Your task to perform on an android device: Open Android settings Image 0: 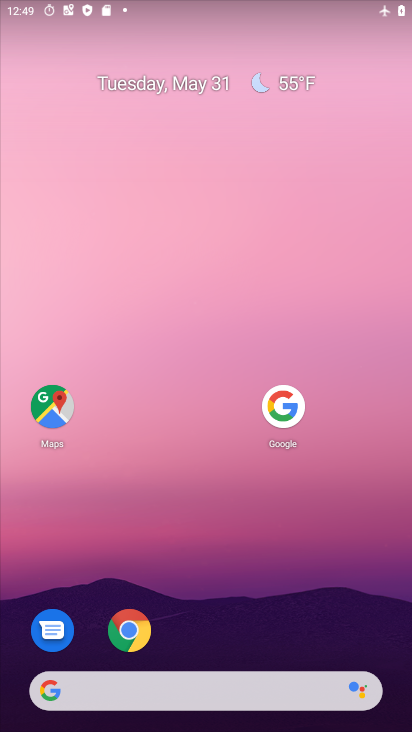
Step 0: press home button
Your task to perform on an android device: Open Android settings Image 1: 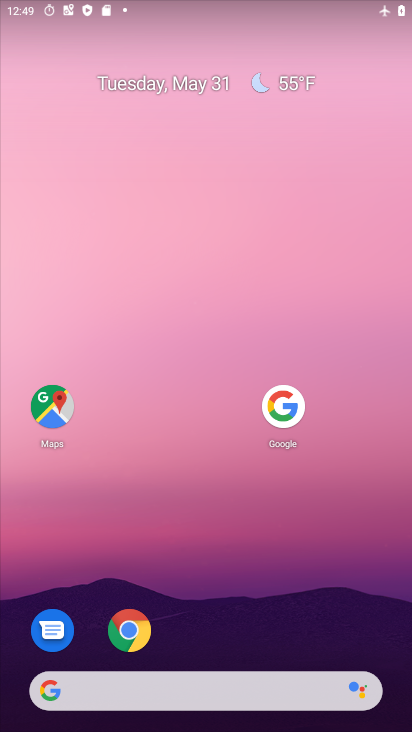
Step 1: drag from (177, 692) to (279, 356)
Your task to perform on an android device: Open Android settings Image 2: 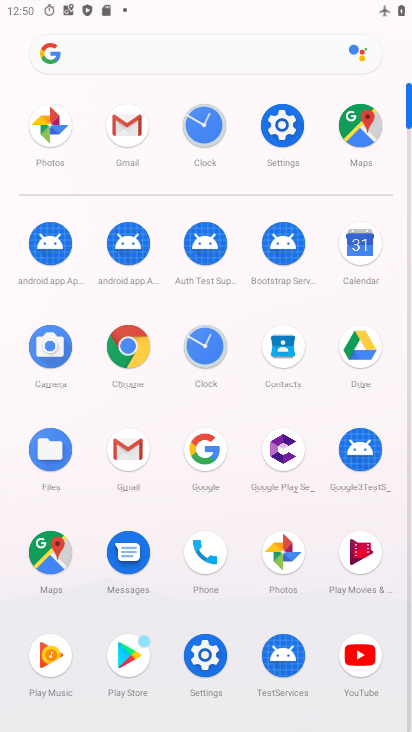
Step 2: press home button
Your task to perform on an android device: Open Android settings Image 3: 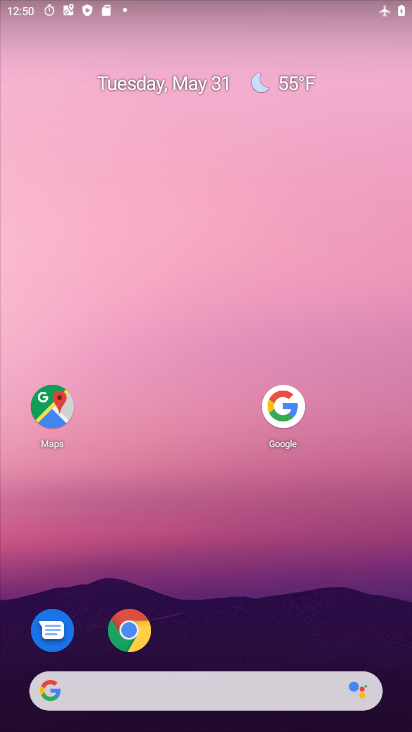
Step 3: drag from (308, 596) to (357, 173)
Your task to perform on an android device: Open Android settings Image 4: 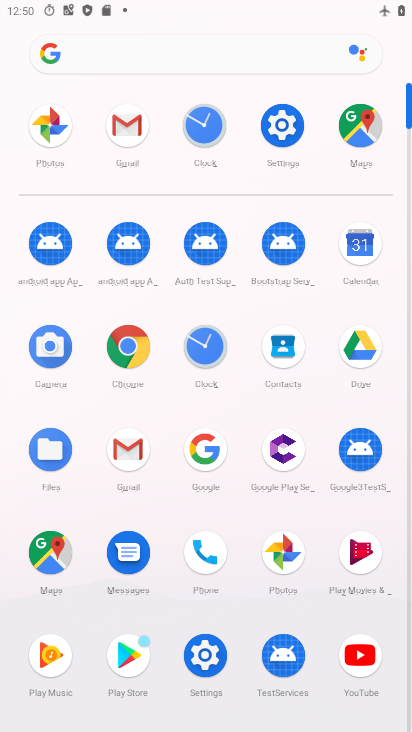
Step 4: click (291, 128)
Your task to perform on an android device: Open Android settings Image 5: 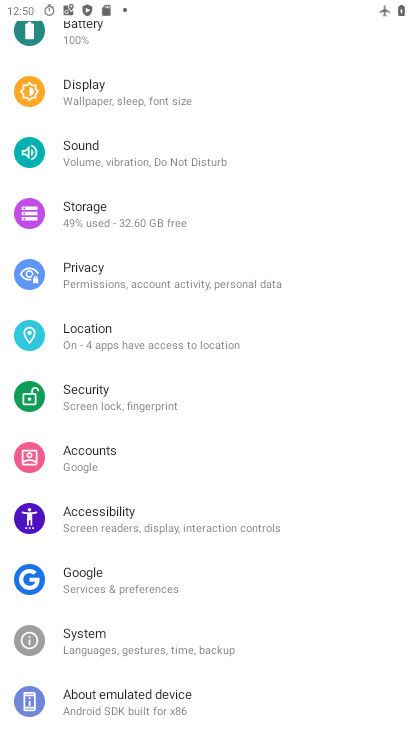
Step 5: task complete